Your task to perform on an android device: Open the calendar app, open the side menu, and click the "Day" option Image 0: 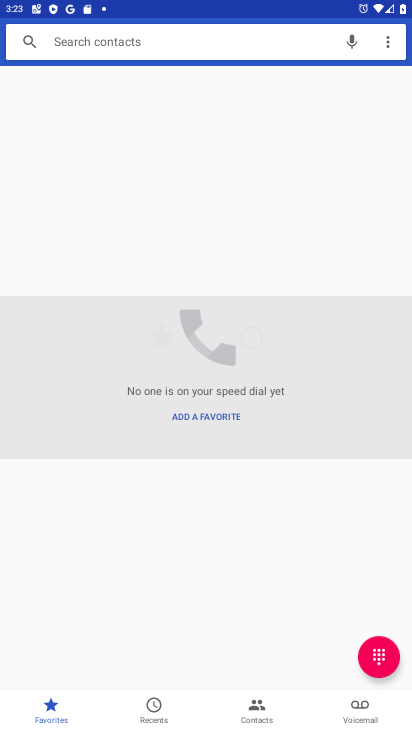
Step 0: press home button
Your task to perform on an android device: Open the calendar app, open the side menu, and click the "Day" option Image 1: 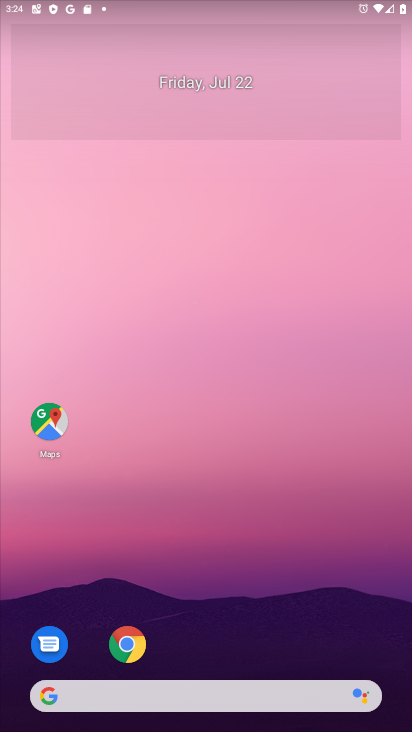
Step 1: drag from (274, 614) to (291, 355)
Your task to perform on an android device: Open the calendar app, open the side menu, and click the "Day" option Image 2: 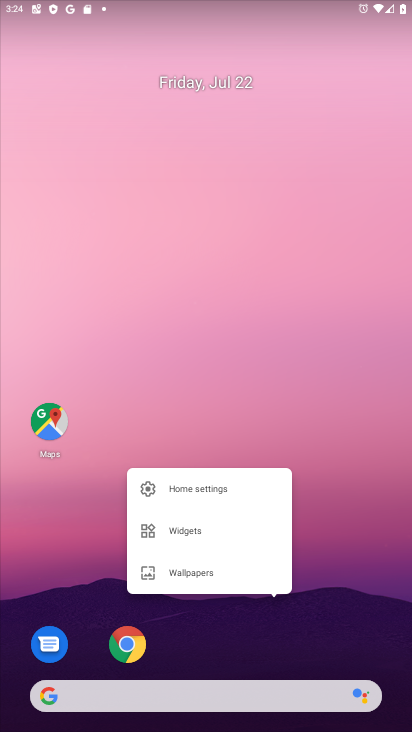
Step 2: click (339, 451)
Your task to perform on an android device: Open the calendar app, open the side menu, and click the "Day" option Image 3: 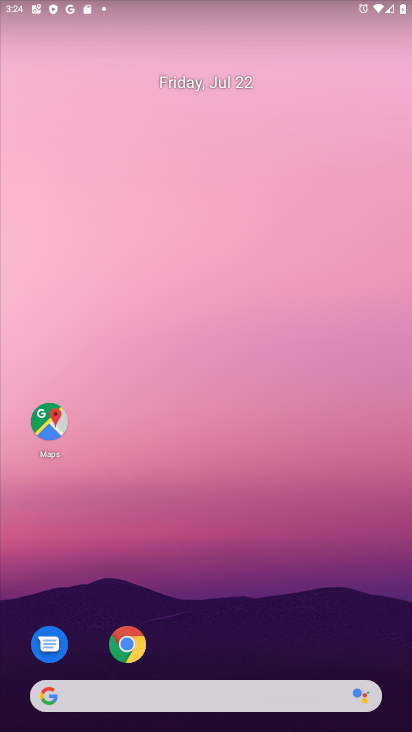
Step 3: drag from (339, 451) to (352, 88)
Your task to perform on an android device: Open the calendar app, open the side menu, and click the "Day" option Image 4: 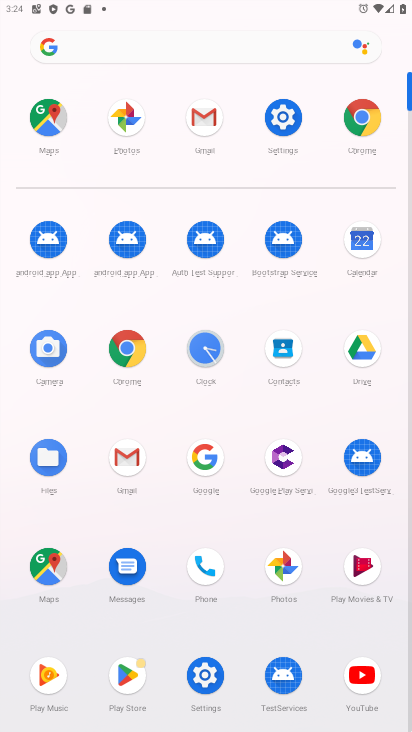
Step 4: click (365, 237)
Your task to perform on an android device: Open the calendar app, open the side menu, and click the "Day" option Image 5: 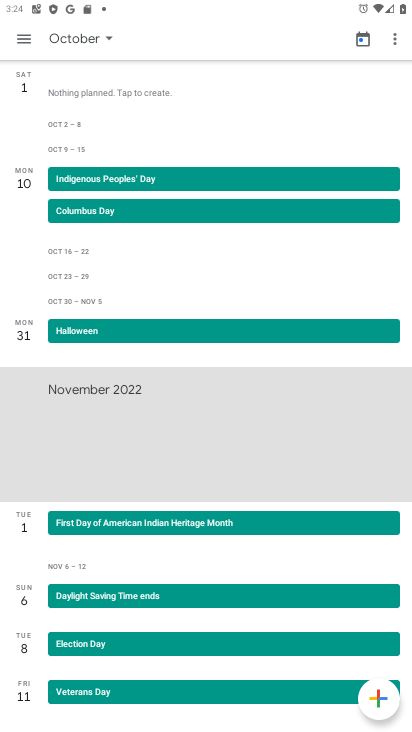
Step 5: click (26, 38)
Your task to perform on an android device: Open the calendar app, open the side menu, and click the "Day" option Image 6: 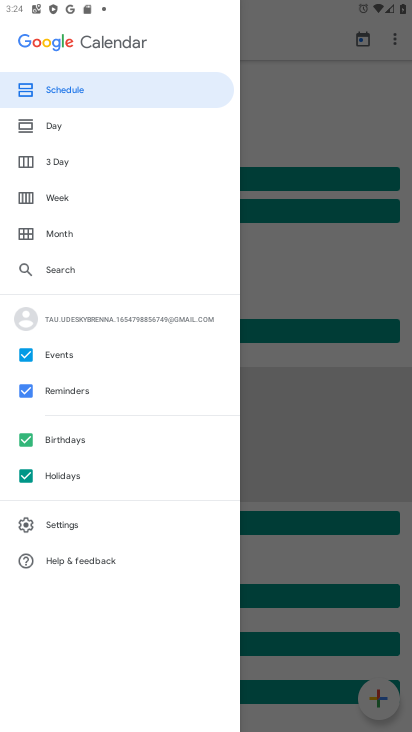
Step 6: click (59, 125)
Your task to perform on an android device: Open the calendar app, open the side menu, and click the "Day" option Image 7: 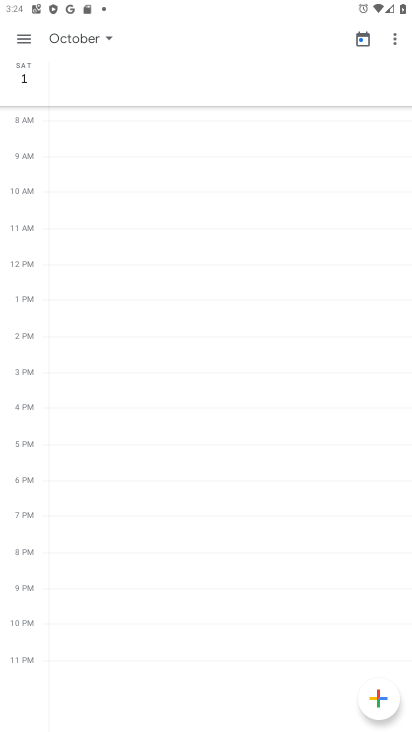
Step 7: task complete